Your task to perform on an android device: turn on airplane mode Image 0: 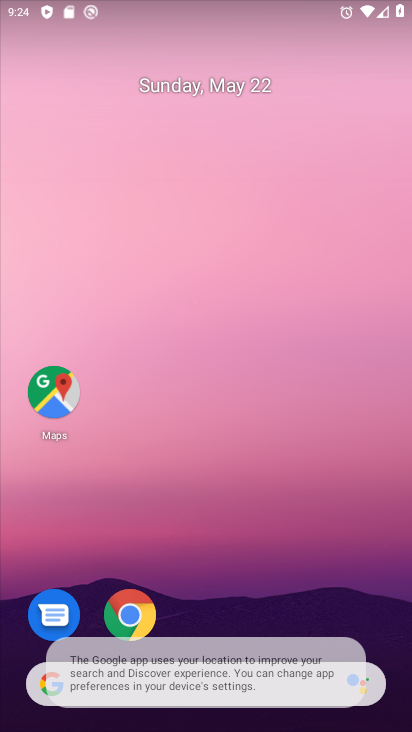
Step 0: drag from (233, 614) to (207, 214)
Your task to perform on an android device: turn on airplane mode Image 1: 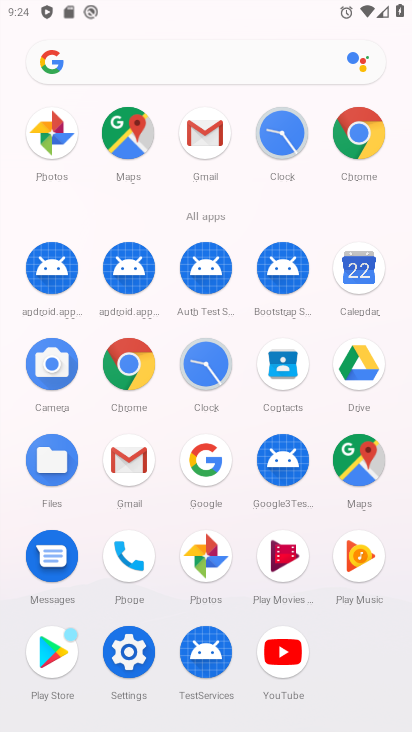
Step 1: click (124, 650)
Your task to perform on an android device: turn on airplane mode Image 2: 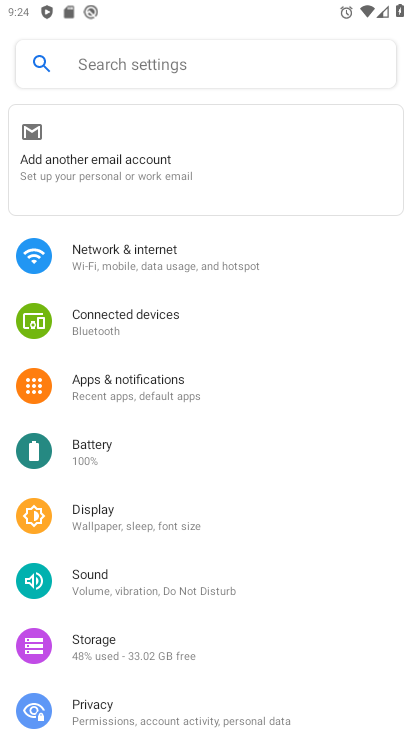
Step 2: click (176, 269)
Your task to perform on an android device: turn on airplane mode Image 3: 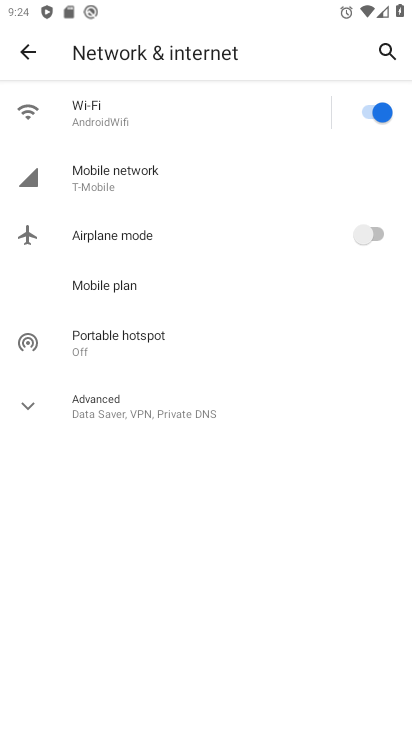
Step 3: click (374, 226)
Your task to perform on an android device: turn on airplane mode Image 4: 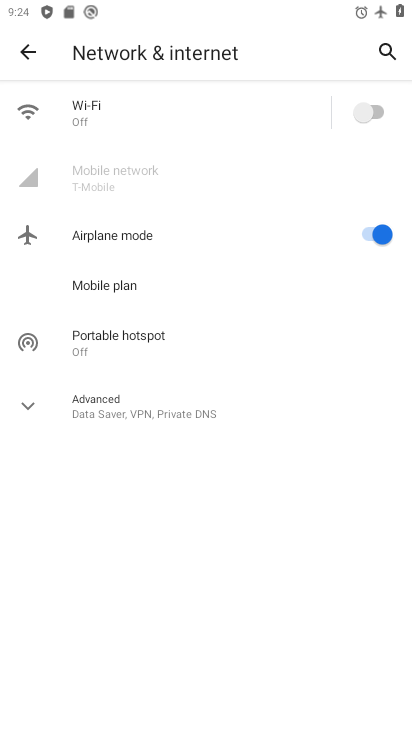
Step 4: task complete